Your task to perform on an android device: uninstall "WhatsApp Messenger" Image 0: 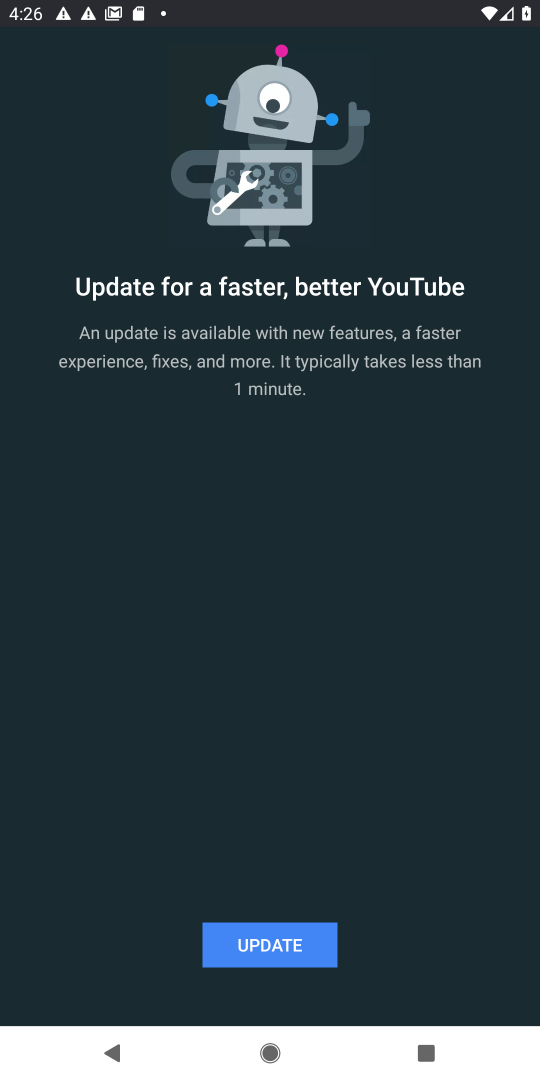
Step 0: press home button
Your task to perform on an android device: uninstall "WhatsApp Messenger" Image 1: 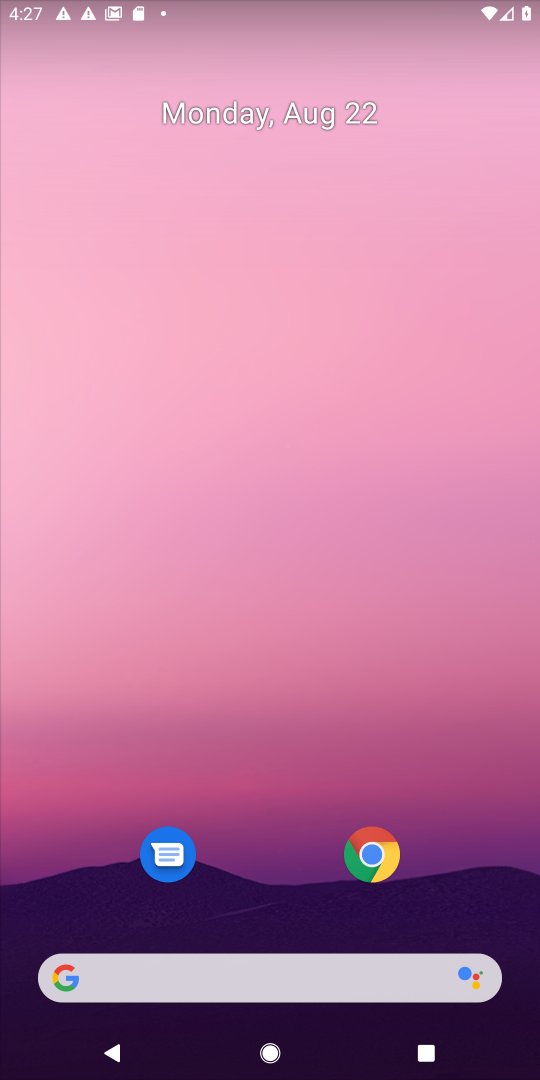
Step 1: drag from (260, 941) to (260, 102)
Your task to perform on an android device: uninstall "WhatsApp Messenger" Image 2: 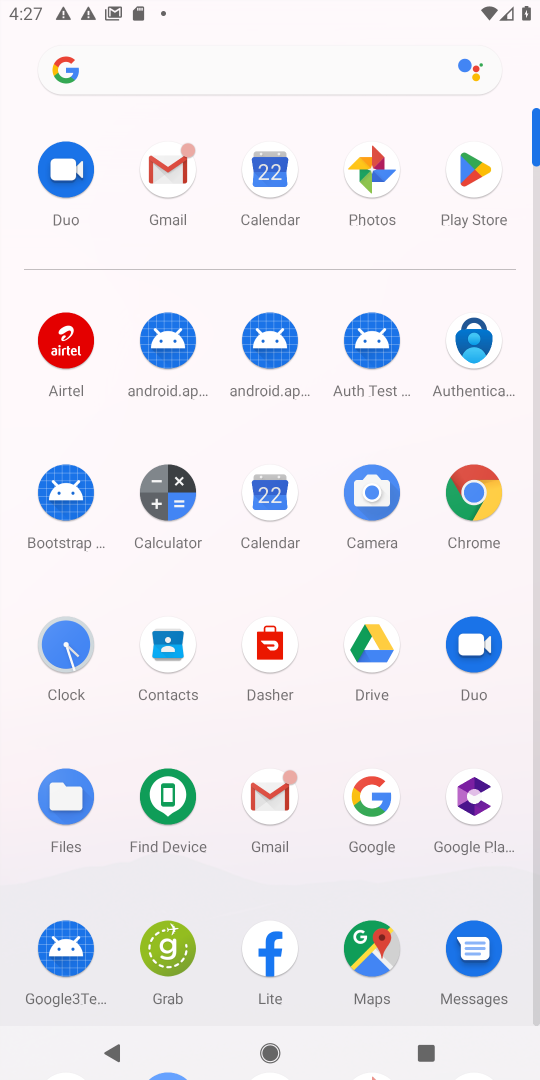
Step 2: click (472, 172)
Your task to perform on an android device: uninstall "WhatsApp Messenger" Image 3: 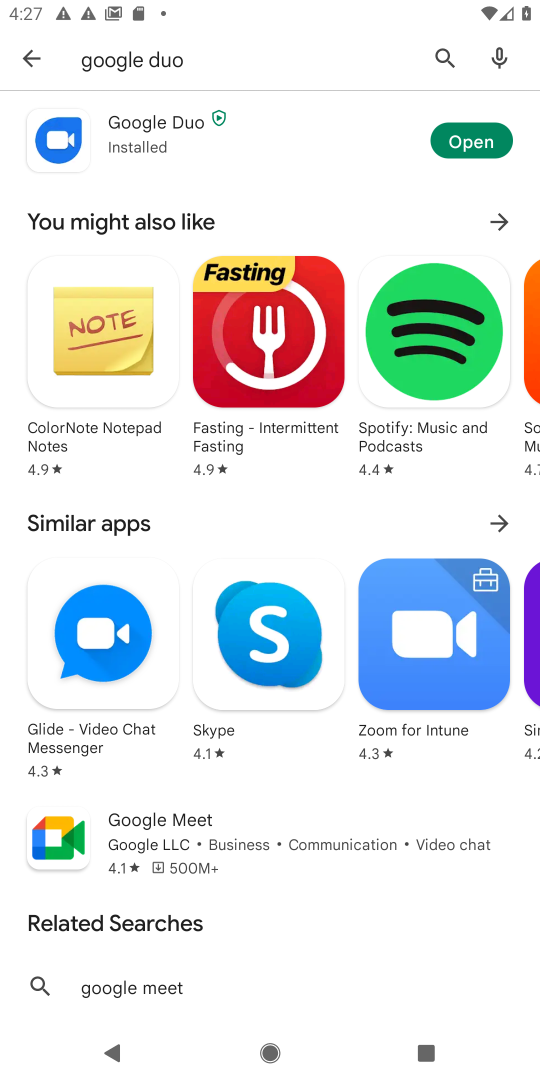
Step 3: click (440, 52)
Your task to perform on an android device: uninstall "WhatsApp Messenger" Image 4: 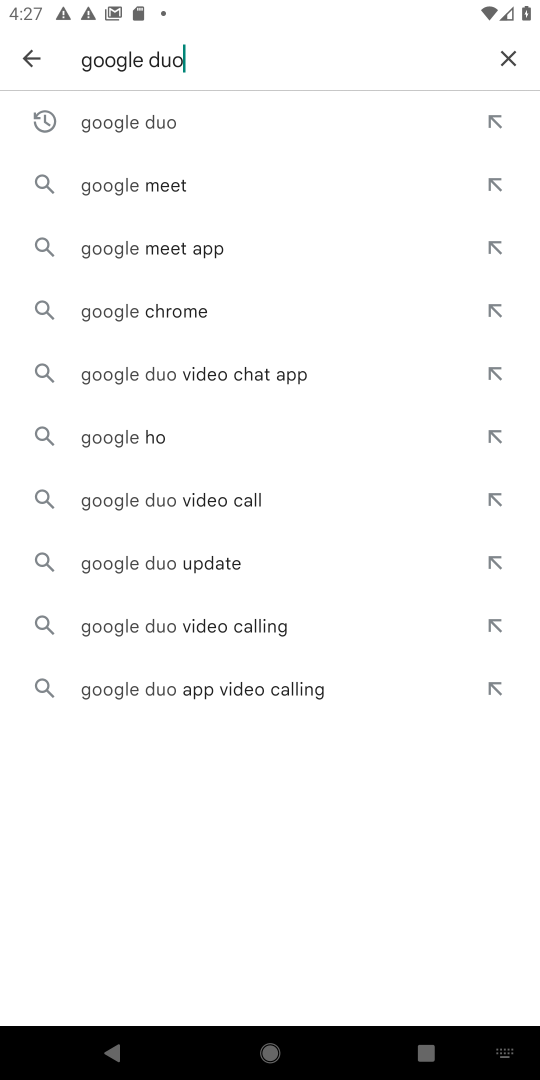
Step 4: click (505, 48)
Your task to perform on an android device: uninstall "WhatsApp Messenger" Image 5: 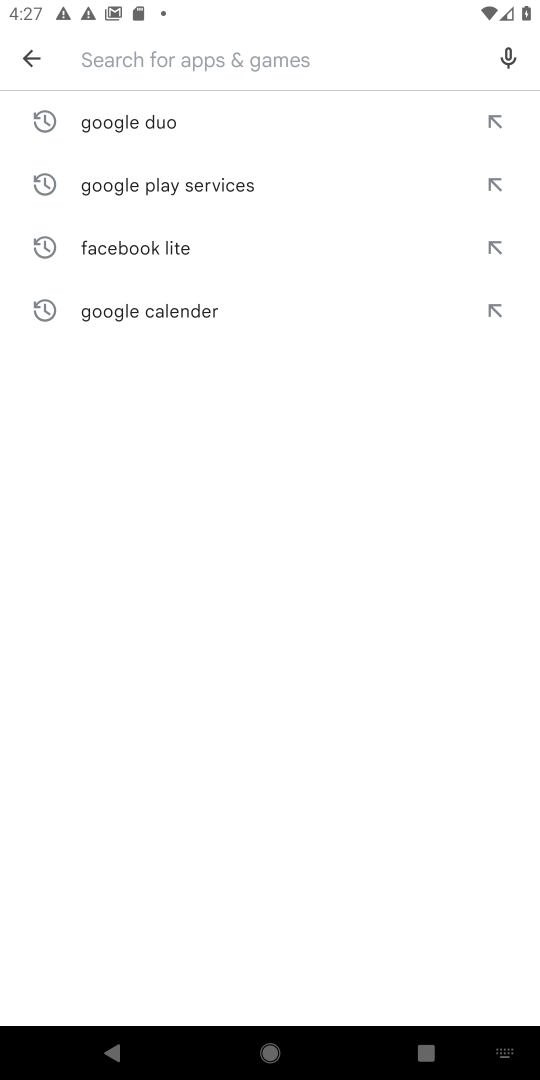
Step 5: type "WhatsApp Messenger"
Your task to perform on an android device: uninstall "WhatsApp Messenger" Image 6: 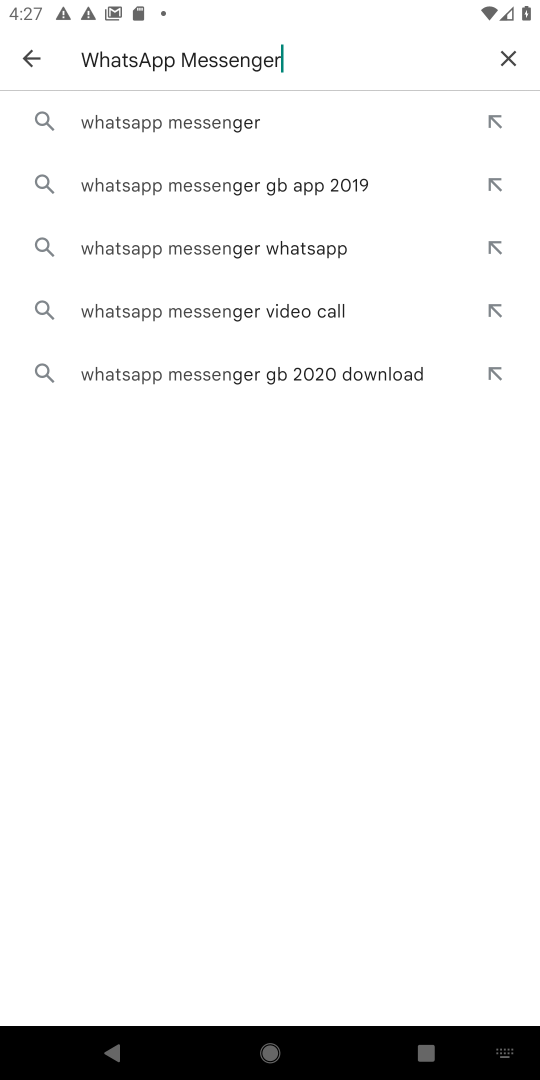
Step 6: type ""
Your task to perform on an android device: uninstall "WhatsApp Messenger" Image 7: 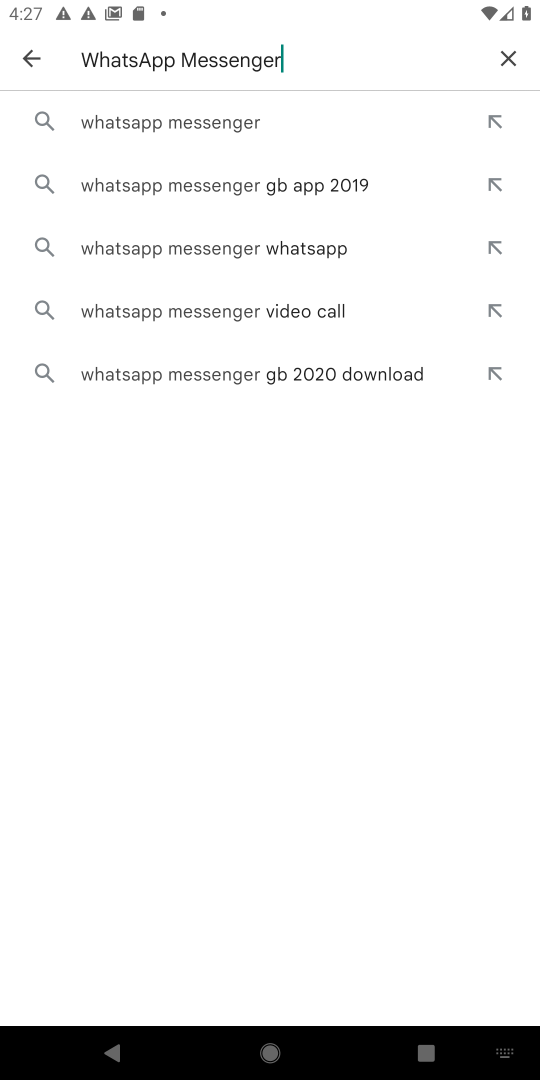
Step 7: click (223, 124)
Your task to perform on an android device: uninstall "WhatsApp Messenger" Image 8: 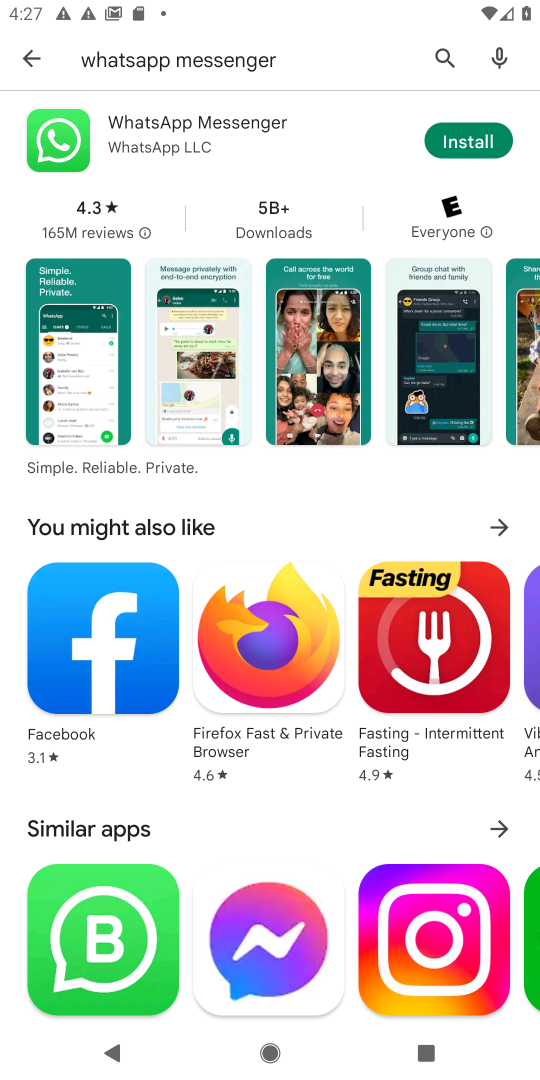
Step 8: click (179, 137)
Your task to perform on an android device: uninstall "WhatsApp Messenger" Image 9: 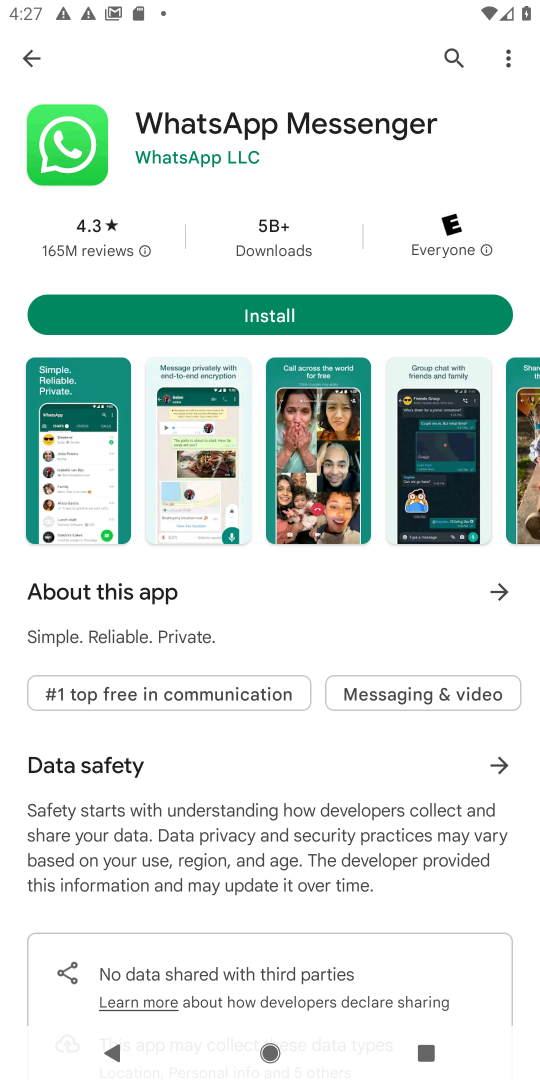
Step 9: task complete